Your task to perform on an android device: turn on wifi Image 0: 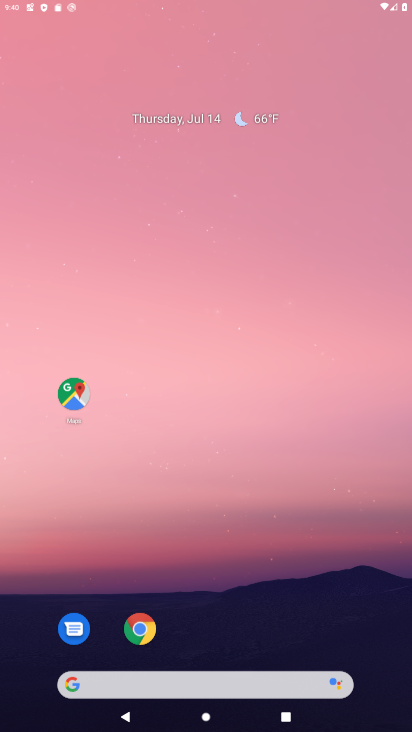
Step 0: press home button
Your task to perform on an android device: turn on wifi Image 1: 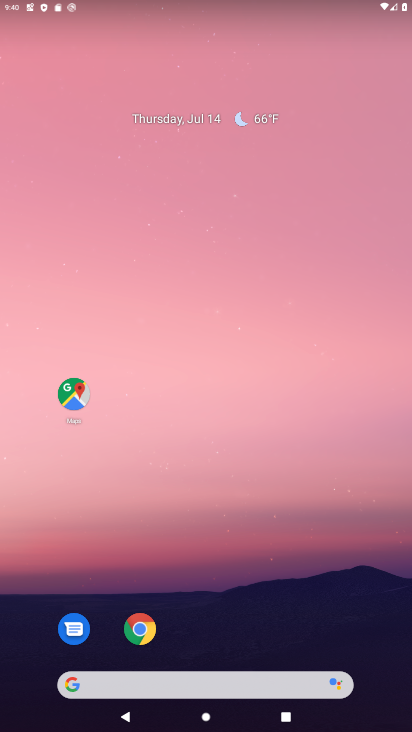
Step 1: drag from (296, 605) to (284, 62)
Your task to perform on an android device: turn on wifi Image 2: 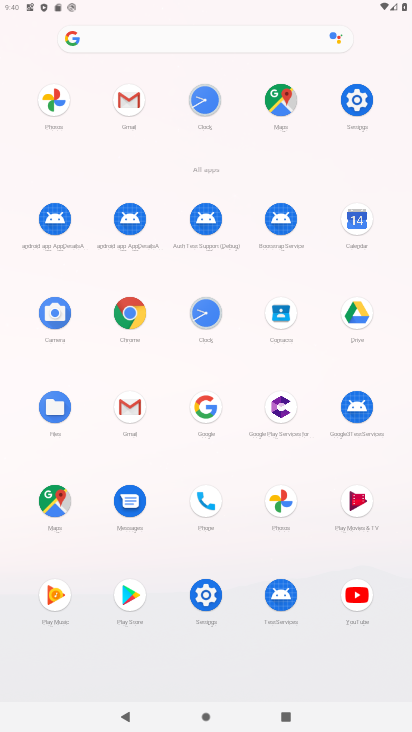
Step 2: click (346, 104)
Your task to perform on an android device: turn on wifi Image 3: 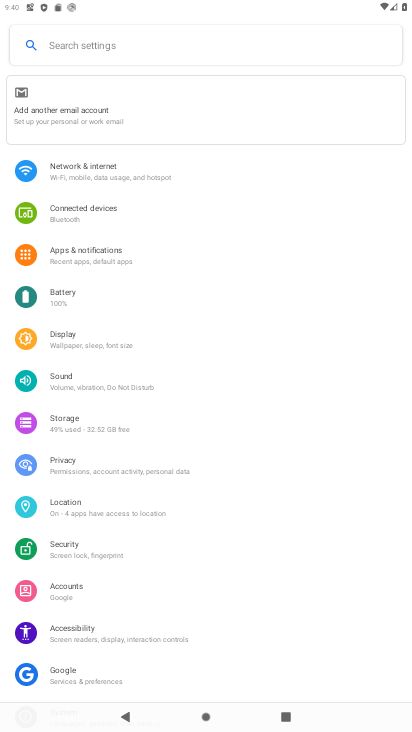
Step 3: click (106, 160)
Your task to perform on an android device: turn on wifi Image 4: 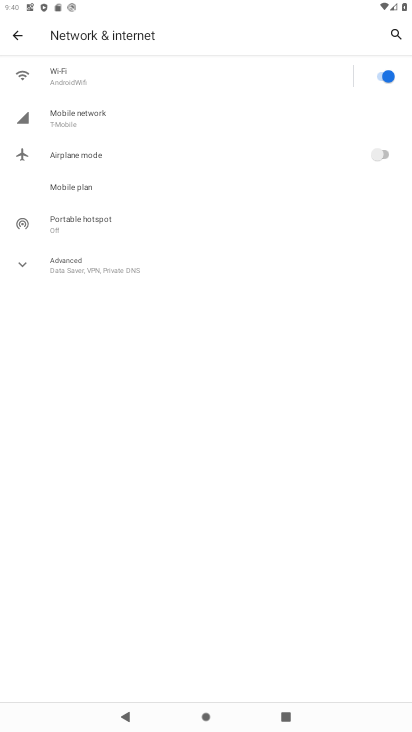
Step 4: task complete